Your task to perform on an android device: Open Google Chrome and open the bookmarks view Image 0: 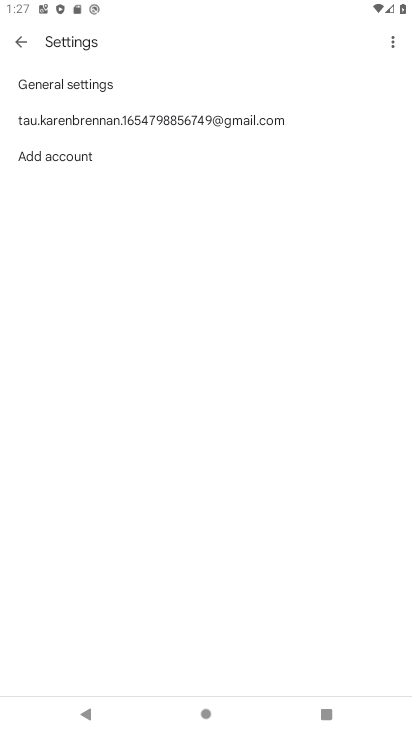
Step 0: press home button
Your task to perform on an android device: Open Google Chrome and open the bookmarks view Image 1: 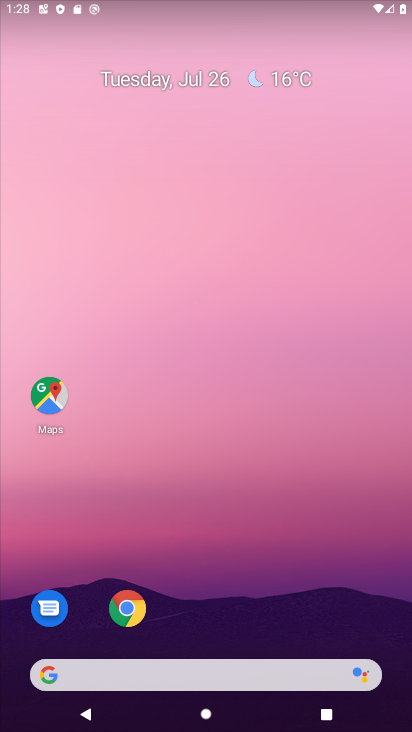
Step 1: click (132, 617)
Your task to perform on an android device: Open Google Chrome and open the bookmarks view Image 2: 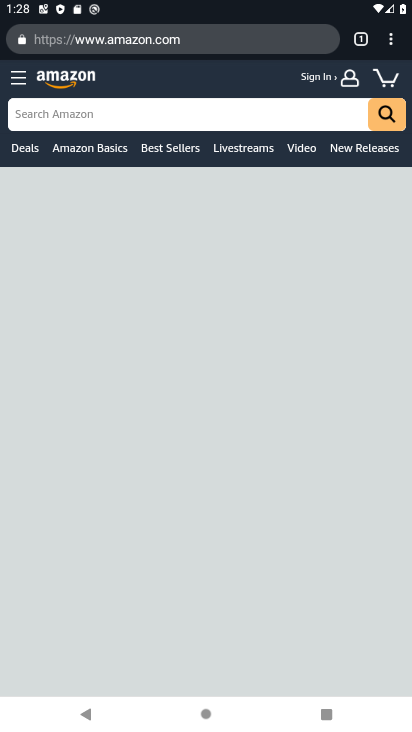
Step 2: task complete